Your task to perform on an android device: Open the phone app and click the voicemail tab. Image 0: 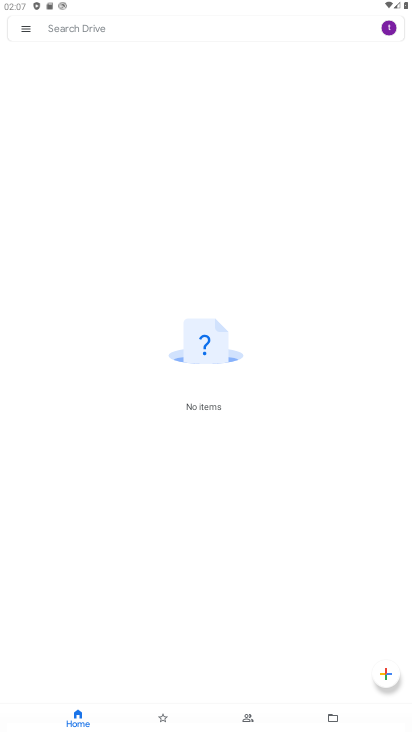
Step 0: press home button
Your task to perform on an android device: Open the phone app and click the voicemail tab. Image 1: 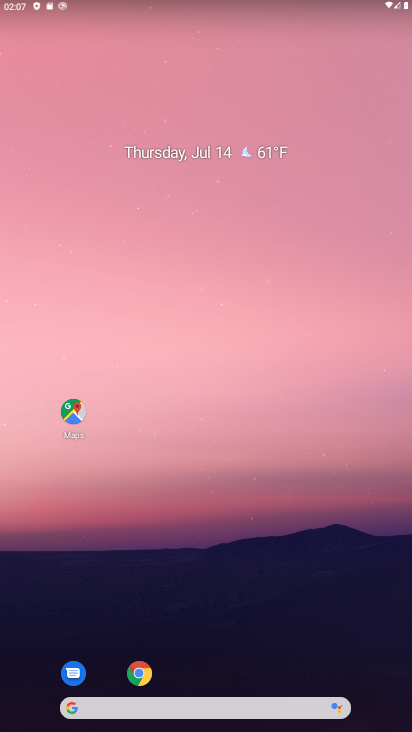
Step 1: drag from (320, 661) to (186, 63)
Your task to perform on an android device: Open the phone app and click the voicemail tab. Image 2: 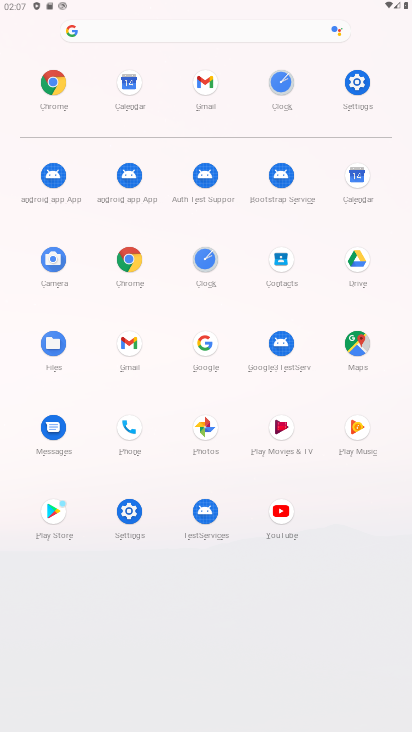
Step 2: click (129, 453)
Your task to perform on an android device: Open the phone app and click the voicemail tab. Image 3: 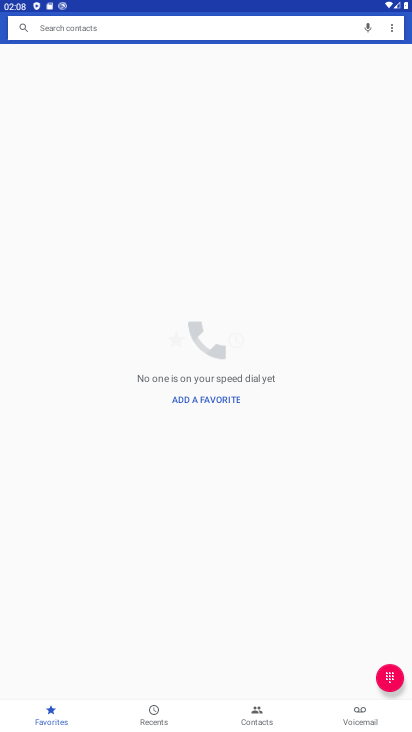
Step 3: click (362, 712)
Your task to perform on an android device: Open the phone app and click the voicemail tab. Image 4: 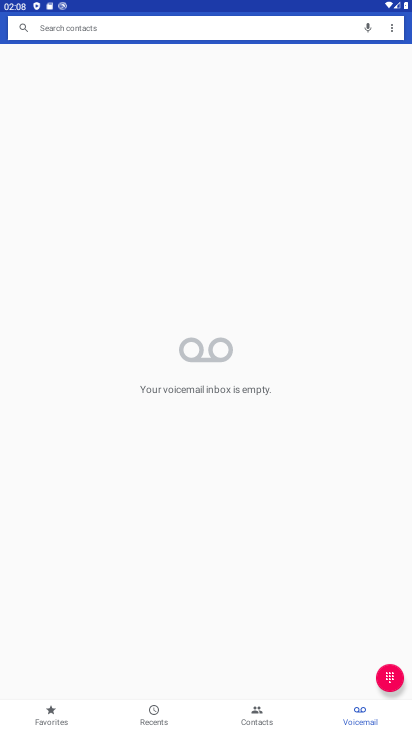
Step 4: task complete